Your task to perform on an android device: Empty the shopping cart on bestbuy. Search for jbl charge 4 on bestbuy, select the first entry, add it to the cart, then select checkout. Image 0: 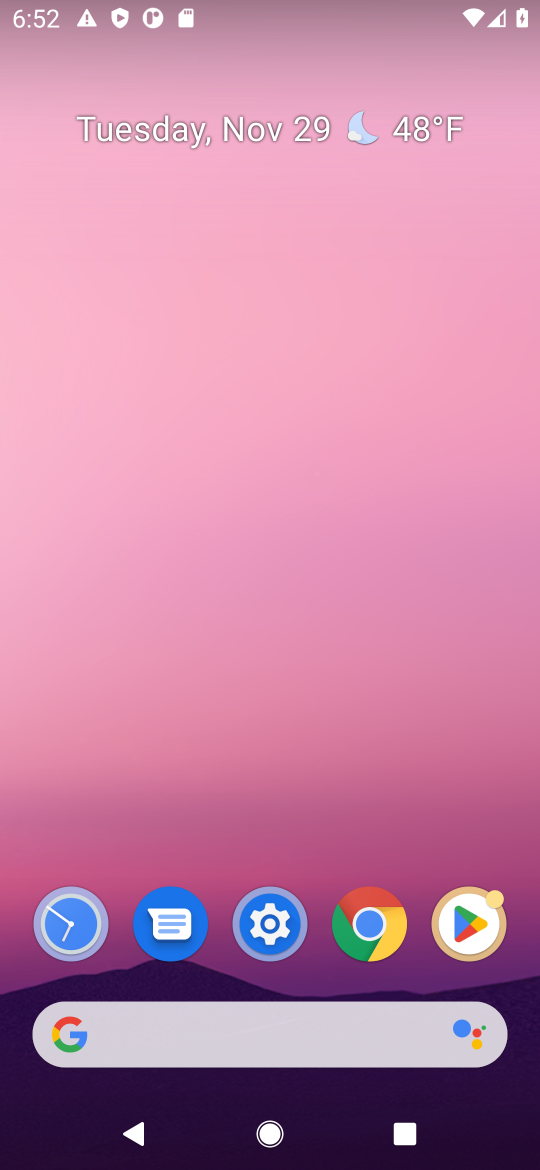
Step 0: click (292, 1018)
Your task to perform on an android device: Empty the shopping cart on bestbuy. Search for jbl charge 4 on bestbuy, select the first entry, add it to the cart, then select checkout. Image 1: 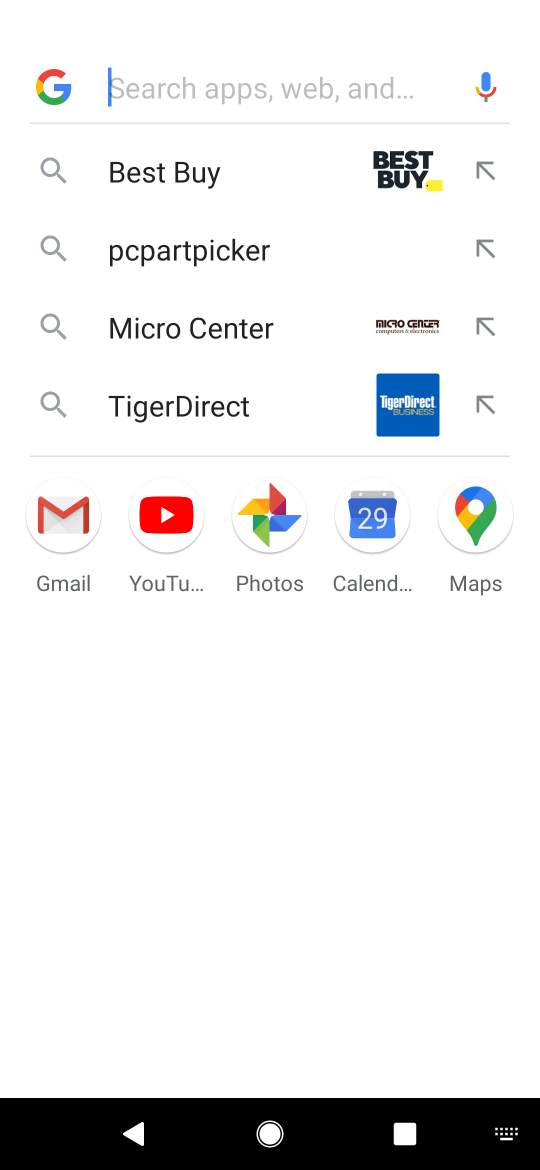
Step 1: click (154, 195)
Your task to perform on an android device: Empty the shopping cart on bestbuy. Search for jbl charge 4 on bestbuy, select the first entry, add it to the cart, then select checkout. Image 2: 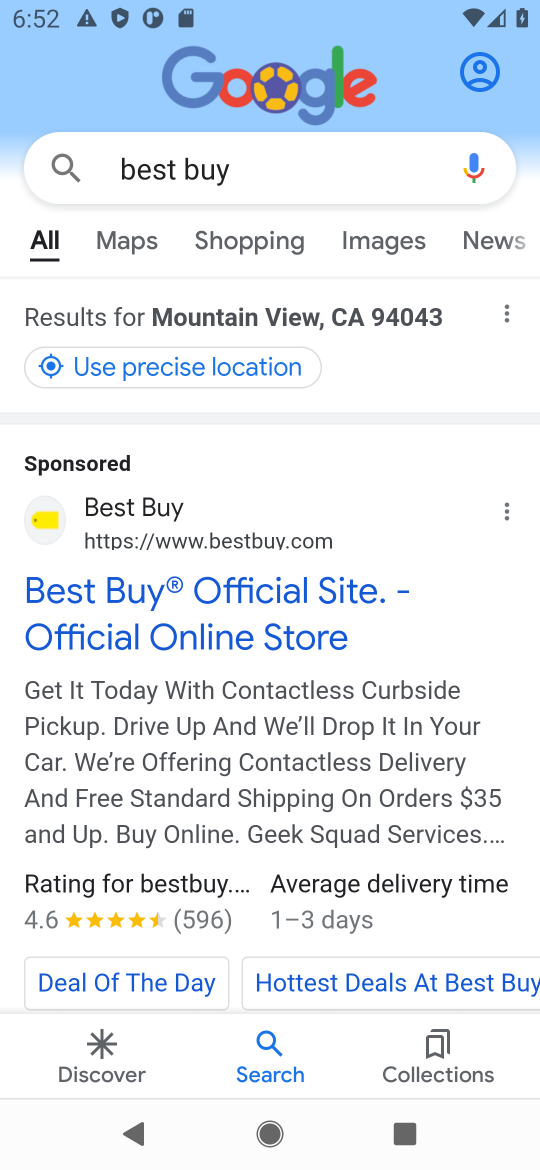
Step 2: click (164, 637)
Your task to perform on an android device: Empty the shopping cart on bestbuy. Search for jbl charge 4 on bestbuy, select the first entry, add it to the cart, then select checkout. Image 3: 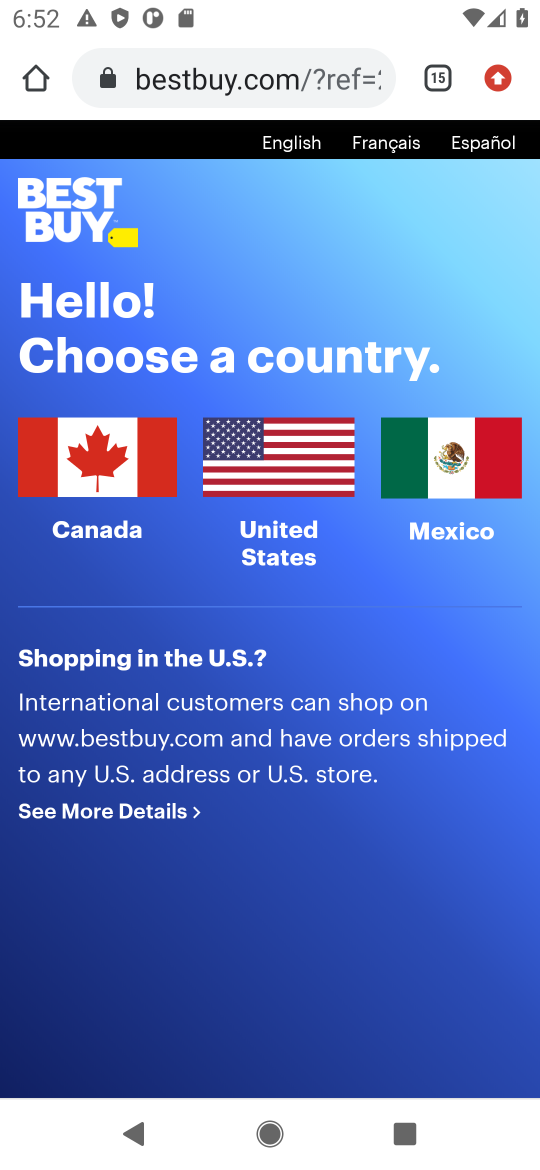
Step 3: click (21, 481)
Your task to perform on an android device: Empty the shopping cart on bestbuy. Search for jbl charge 4 on bestbuy, select the first entry, add it to the cart, then select checkout. Image 4: 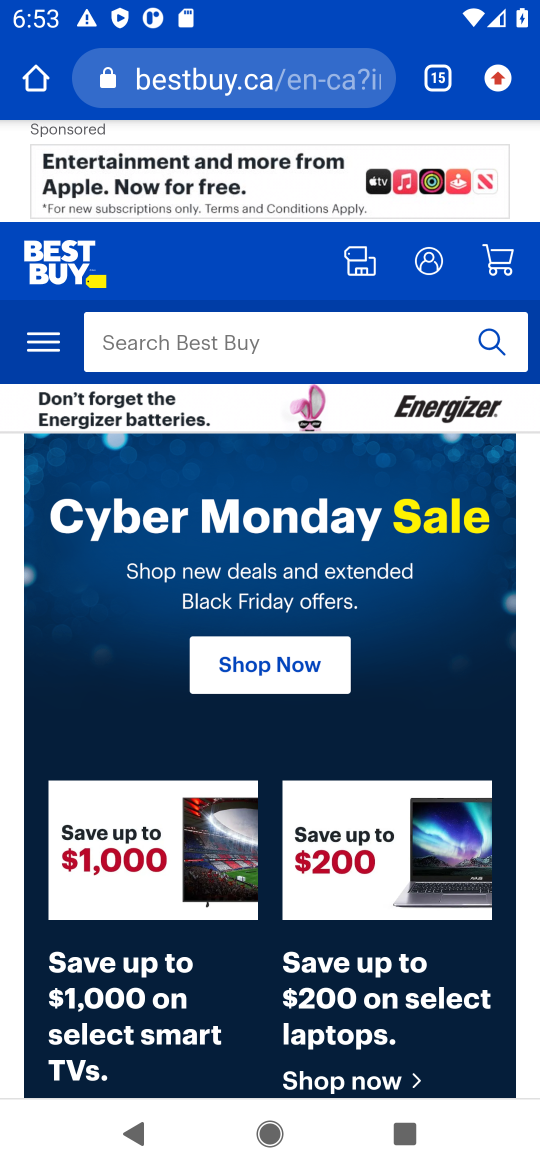
Step 4: click (137, 338)
Your task to perform on an android device: Empty the shopping cart on bestbuy. Search for jbl charge 4 on bestbuy, select the first entry, add it to the cart, then select checkout. Image 5: 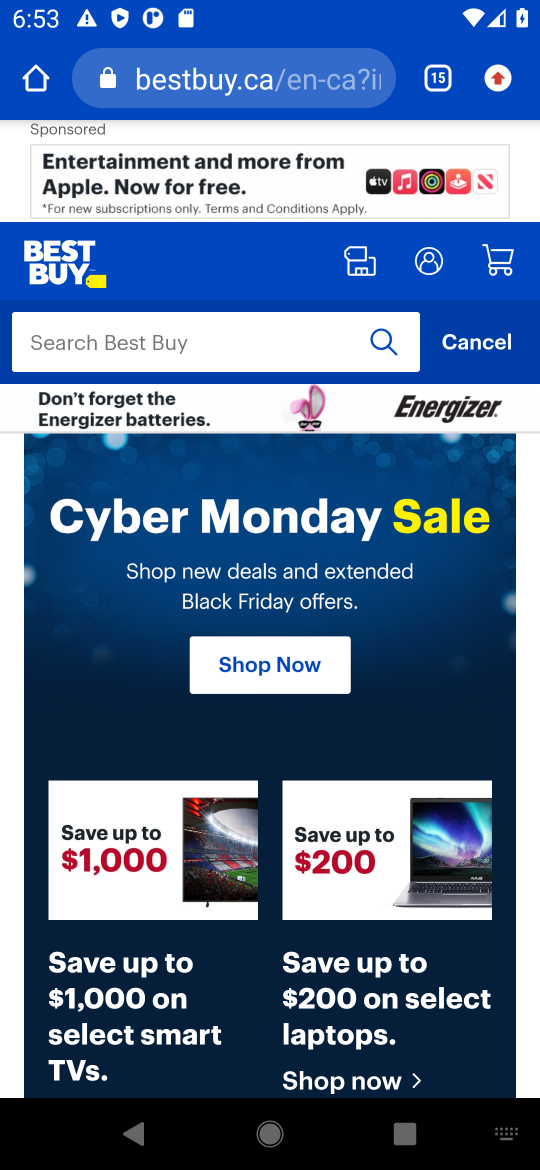
Step 5: press home button
Your task to perform on an android device: Empty the shopping cart on bestbuy. Search for jbl charge 4 on bestbuy, select the first entry, add it to the cart, then select checkout. Image 6: 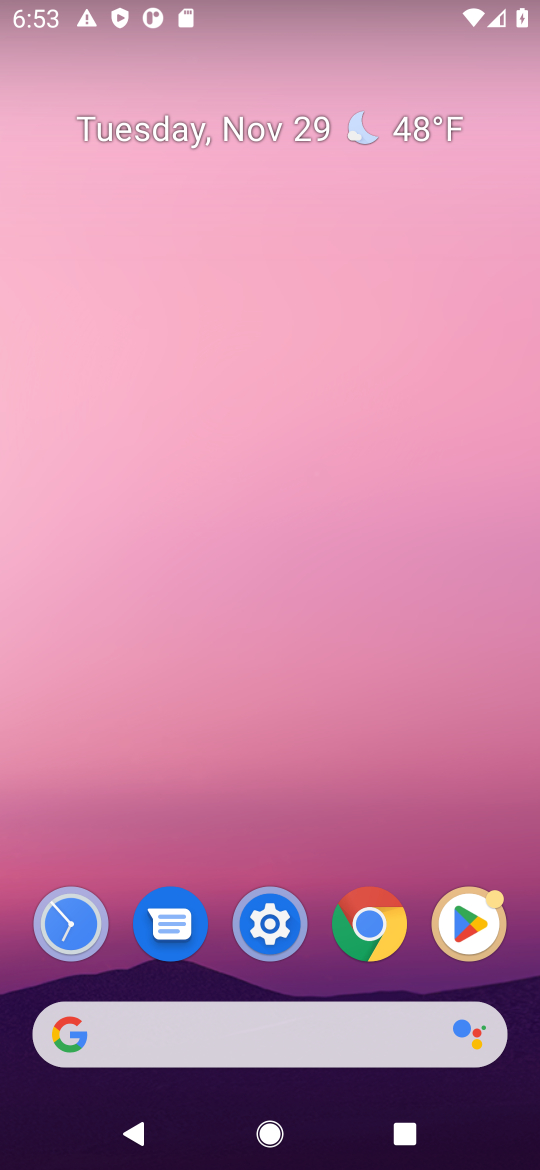
Step 6: click (169, 1023)
Your task to perform on an android device: Empty the shopping cart on bestbuy. Search for jbl charge 4 on bestbuy, select the first entry, add it to the cart, then select checkout. Image 7: 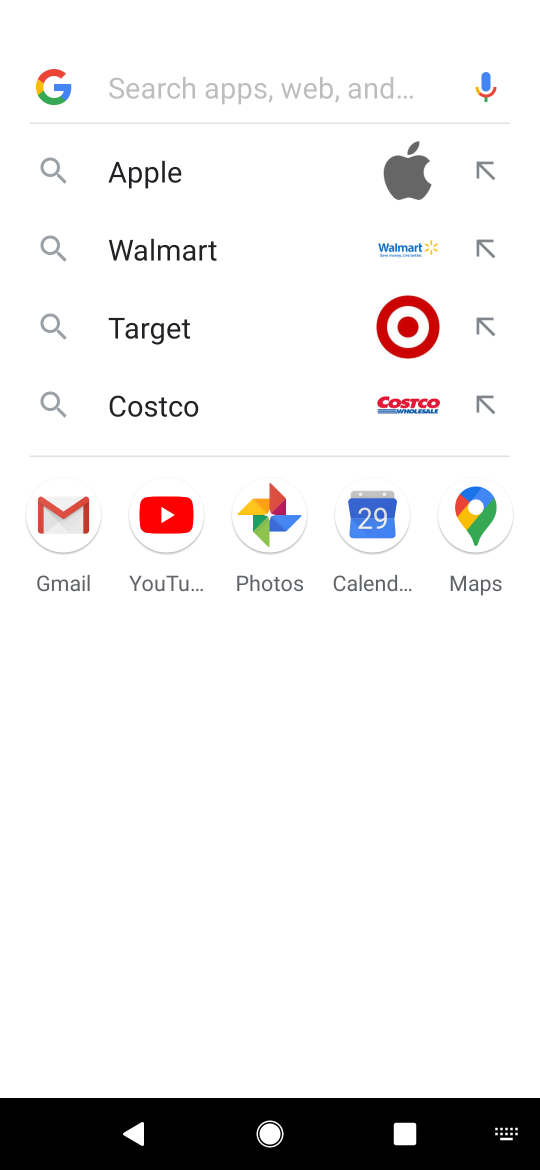
Step 7: type "bestbuy"
Your task to perform on an android device: Empty the shopping cart on bestbuy. Search for jbl charge 4 on bestbuy, select the first entry, add it to the cart, then select checkout. Image 8: 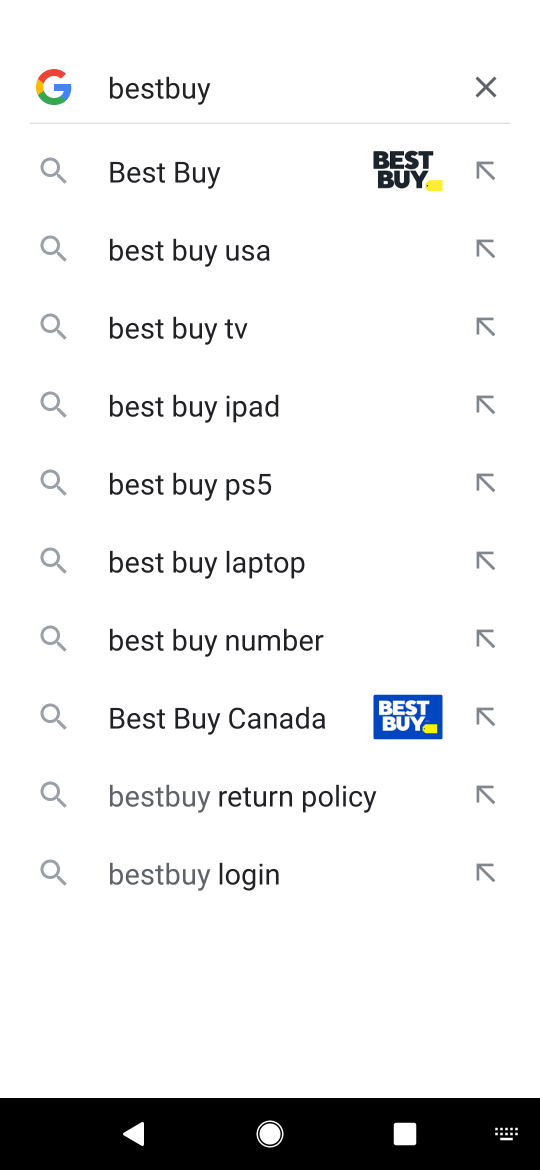
Step 8: click (161, 158)
Your task to perform on an android device: Empty the shopping cart on bestbuy. Search for jbl charge 4 on bestbuy, select the first entry, add it to the cart, then select checkout. Image 9: 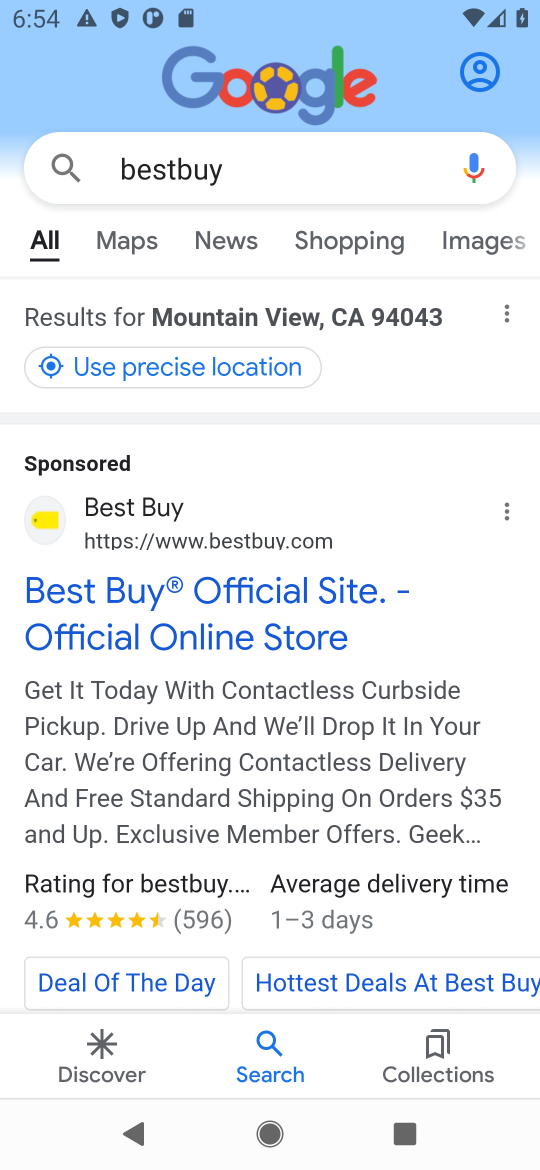
Step 9: click (169, 617)
Your task to perform on an android device: Empty the shopping cart on bestbuy. Search for jbl charge 4 on bestbuy, select the first entry, add it to the cart, then select checkout. Image 10: 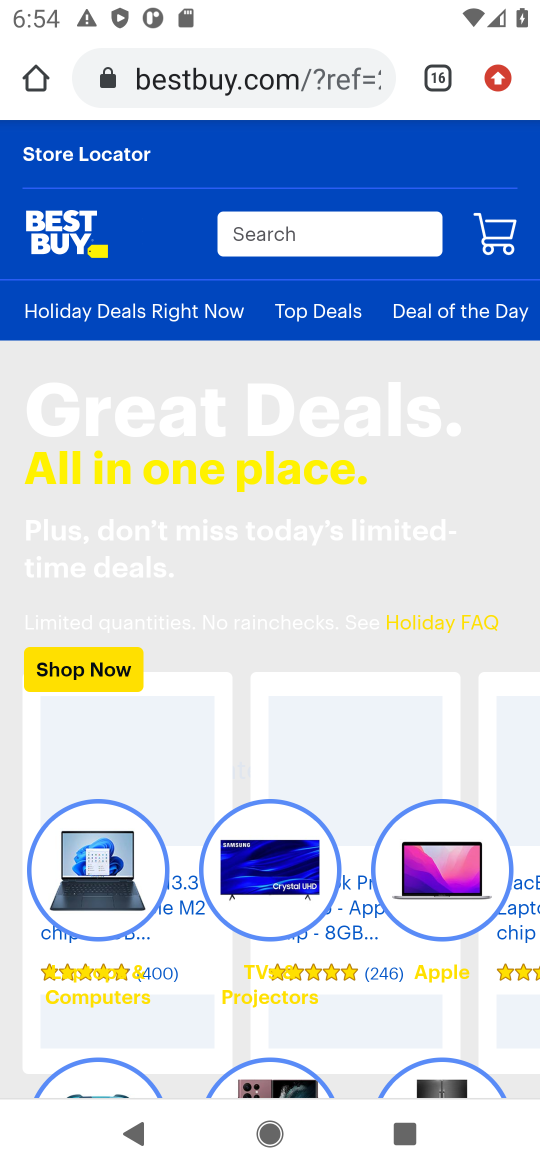
Step 10: click (245, 231)
Your task to perform on an android device: Empty the shopping cart on bestbuy. Search for jbl charge 4 on bestbuy, select the first entry, add it to the cart, then select checkout. Image 11: 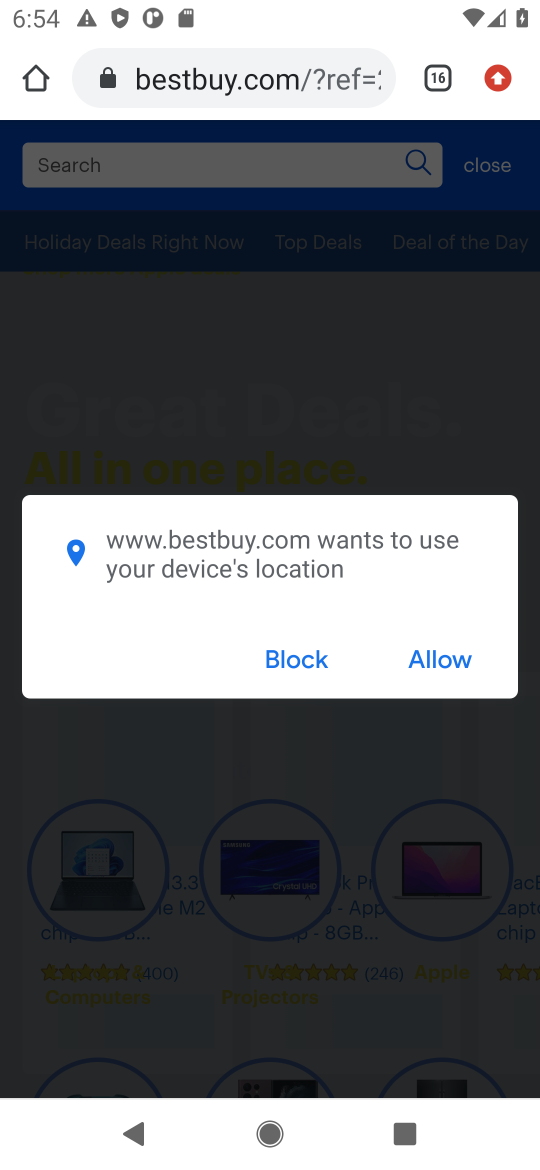
Step 11: click (471, 664)
Your task to perform on an android device: Empty the shopping cart on bestbuy. Search for jbl charge 4 on bestbuy, select the first entry, add it to the cart, then select checkout. Image 12: 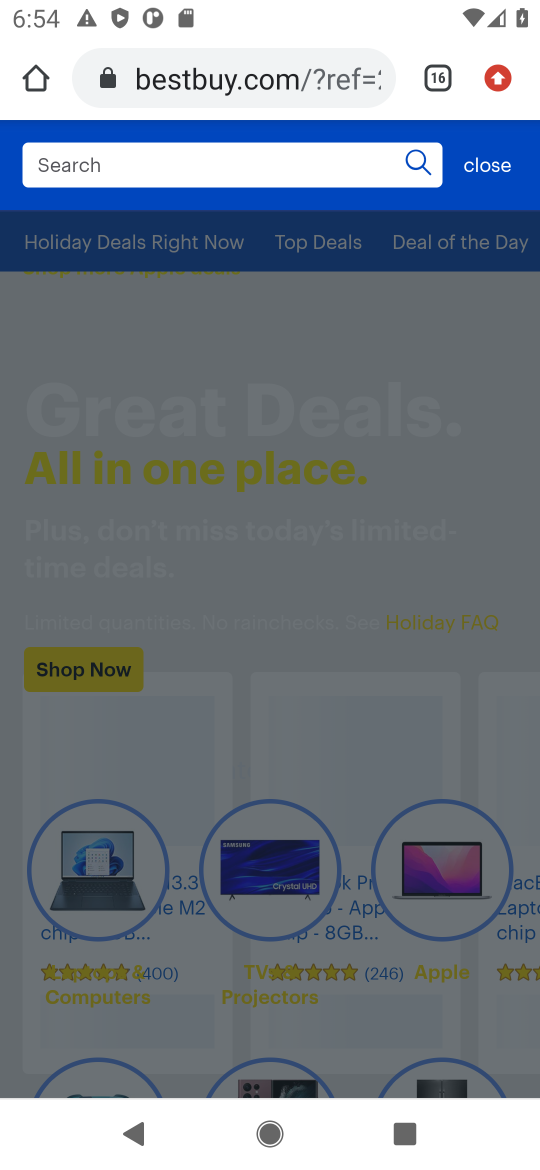
Step 12: click (174, 155)
Your task to perform on an android device: Empty the shopping cart on bestbuy. Search for jbl charge 4 on bestbuy, select the first entry, add it to the cart, then select checkout. Image 13: 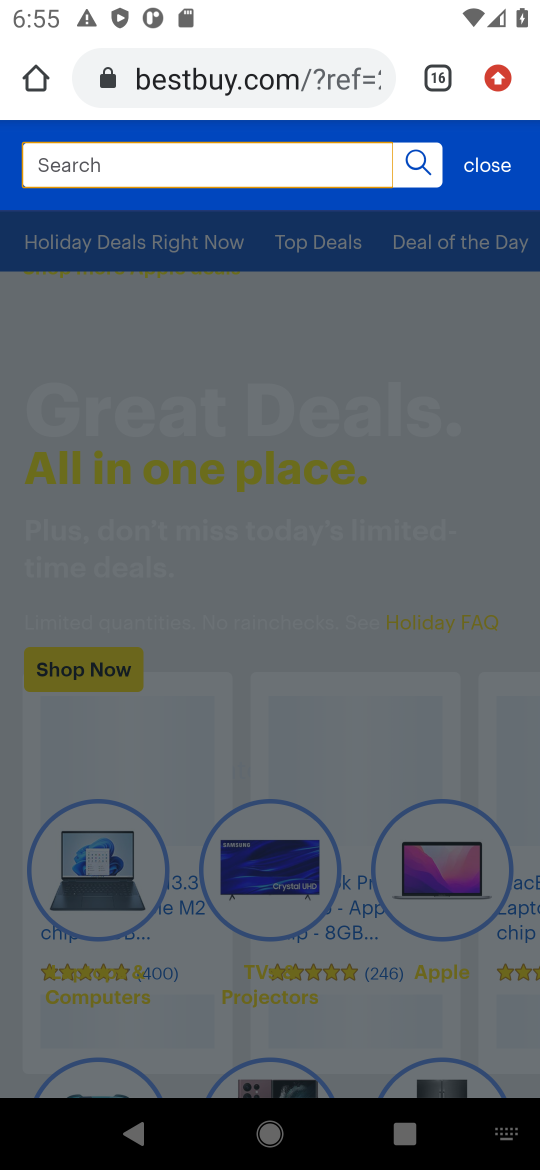
Step 13: type "jbl charge 4"
Your task to perform on an android device: Empty the shopping cart on bestbuy. Search for jbl charge 4 on bestbuy, select the first entry, add it to the cart, then select checkout. Image 14: 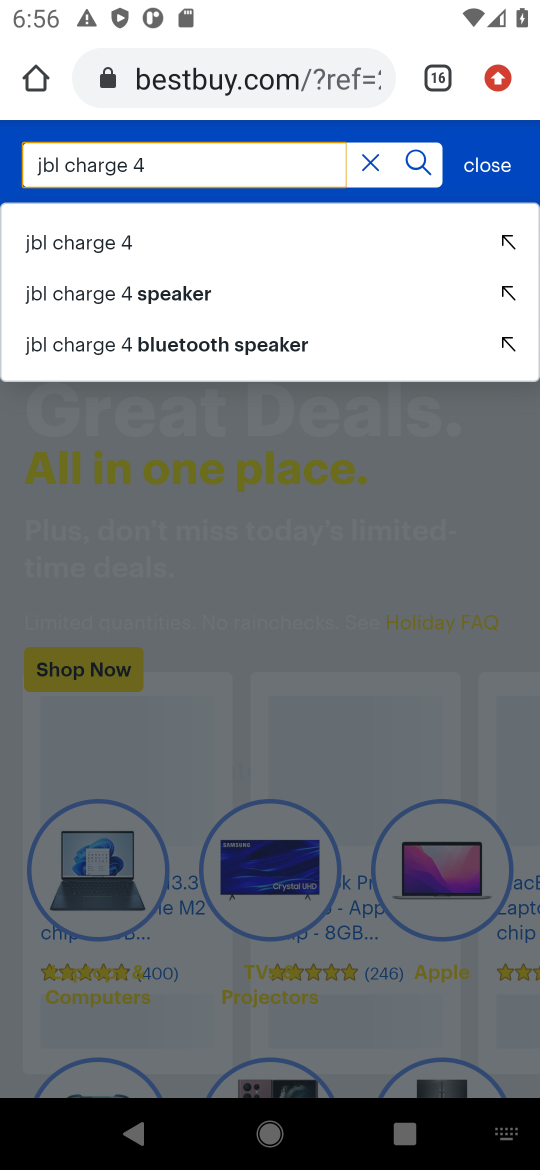
Step 14: click (100, 250)
Your task to perform on an android device: Empty the shopping cart on bestbuy. Search for jbl charge 4 on bestbuy, select the first entry, add it to the cart, then select checkout. Image 15: 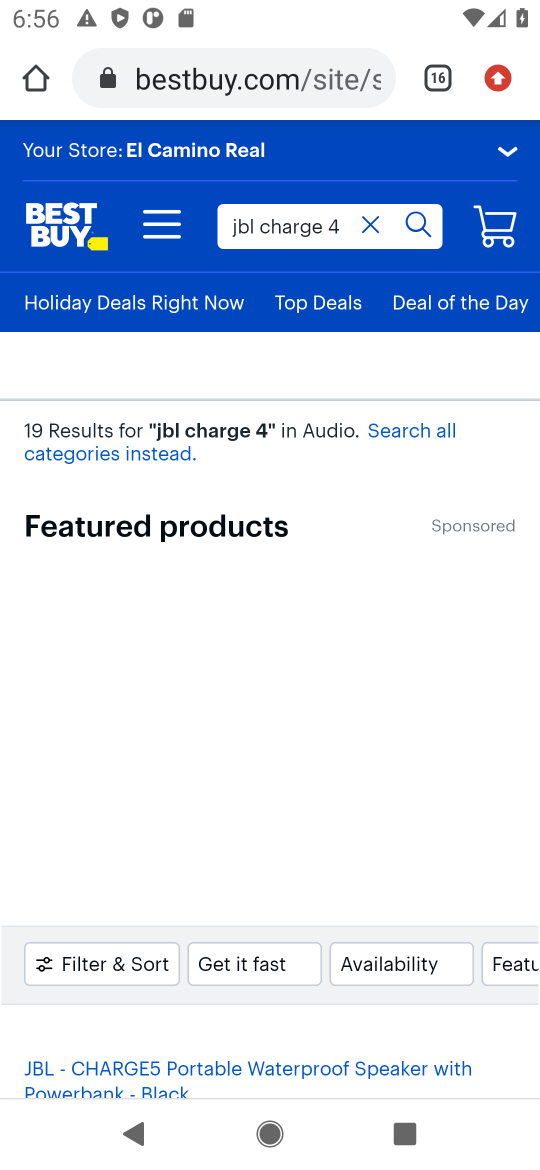
Step 15: task complete